Your task to perform on an android device: open app "Calculator" (install if not already installed) Image 0: 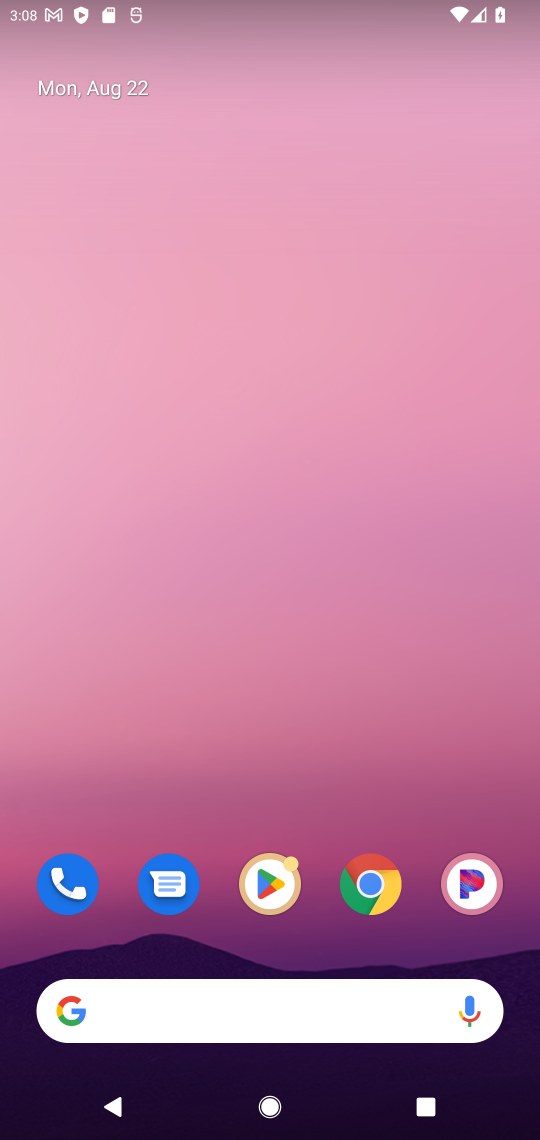
Step 0: click (264, 888)
Your task to perform on an android device: open app "Calculator" (install if not already installed) Image 1: 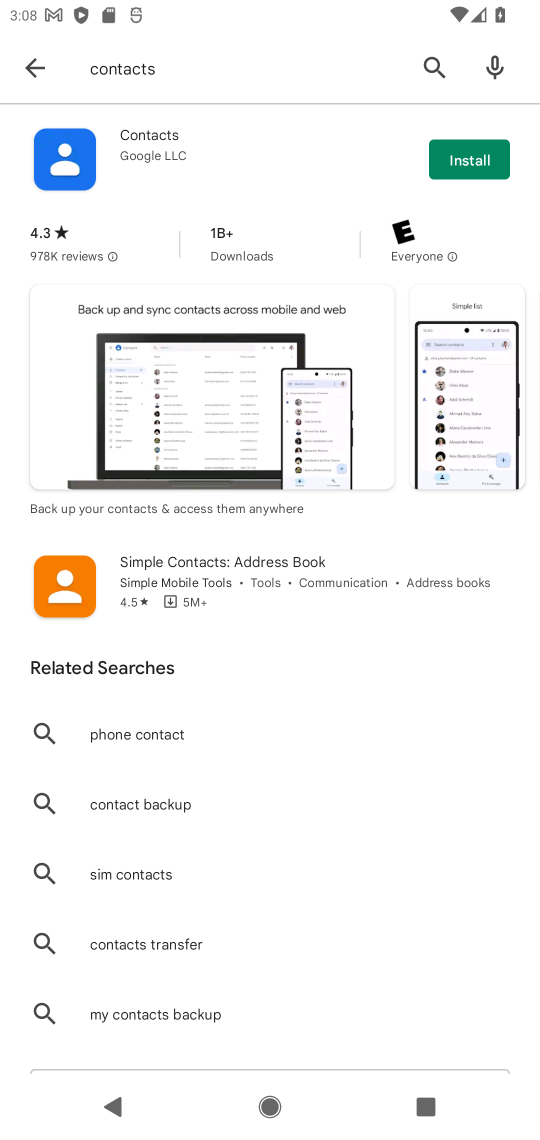
Step 1: click (155, 69)
Your task to perform on an android device: open app "Calculator" (install if not already installed) Image 2: 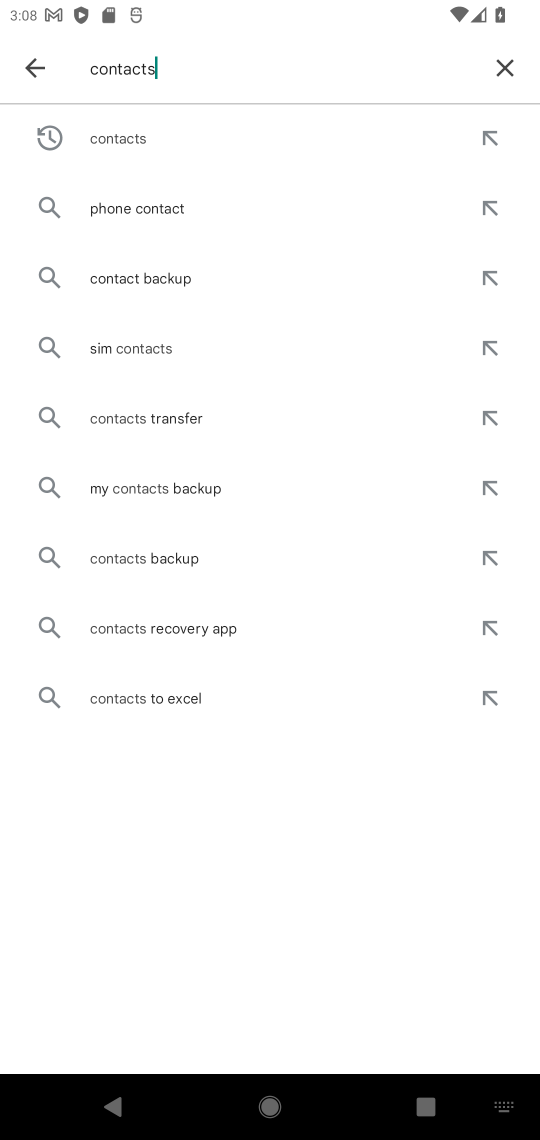
Step 2: click (501, 63)
Your task to perform on an android device: open app "Calculator" (install if not already installed) Image 3: 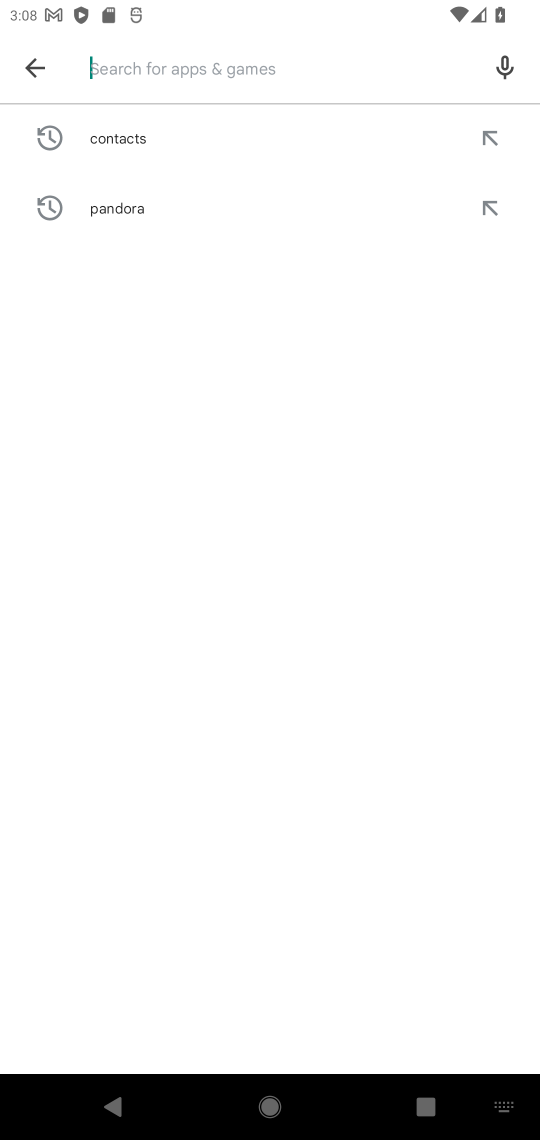
Step 3: type "calculator"
Your task to perform on an android device: open app "Calculator" (install if not already installed) Image 4: 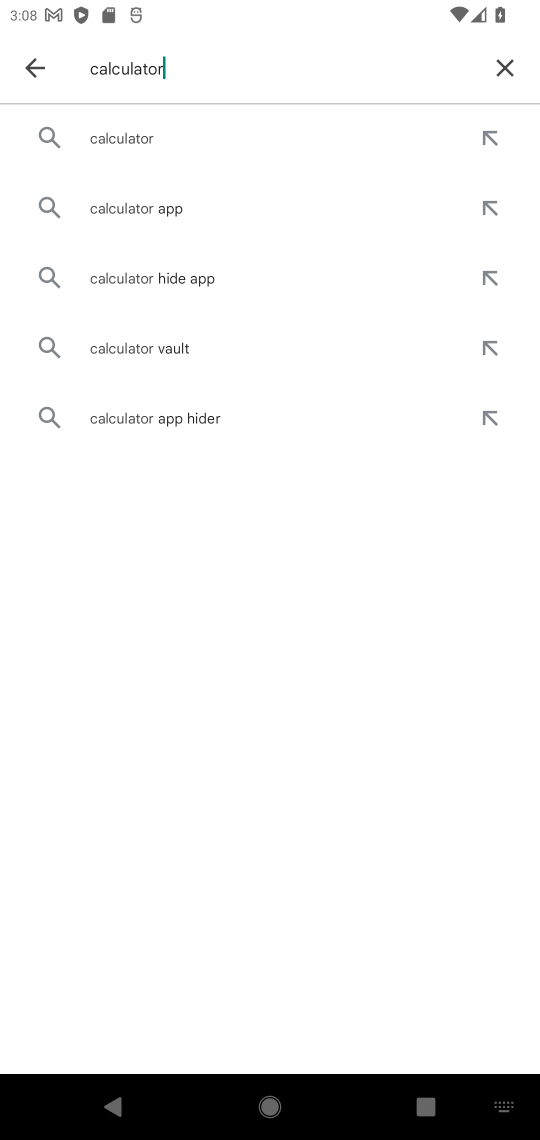
Step 4: click (140, 130)
Your task to perform on an android device: open app "Calculator" (install if not already installed) Image 5: 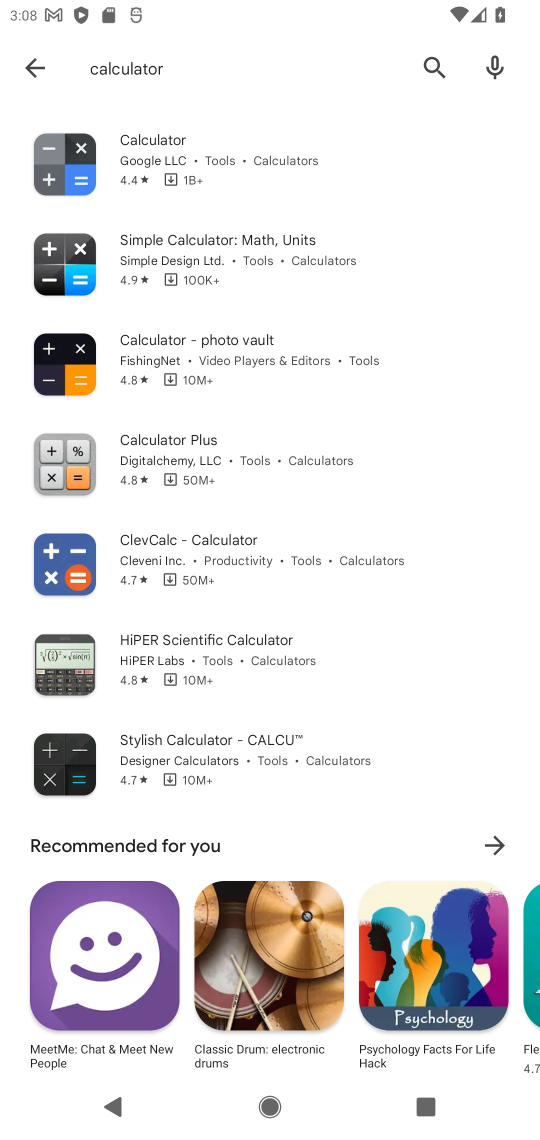
Step 5: click (254, 171)
Your task to perform on an android device: open app "Calculator" (install if not already installed) Image 6: 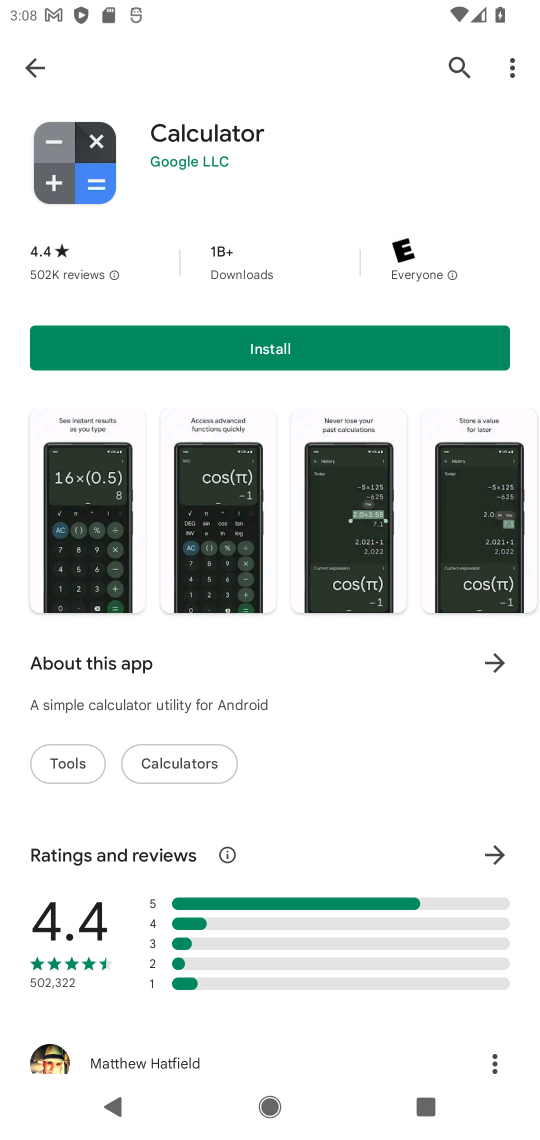
Step 6: click (296, 348)
Your task to perform on an android device: open app "Calculator" (install if not already installed) Image 7: 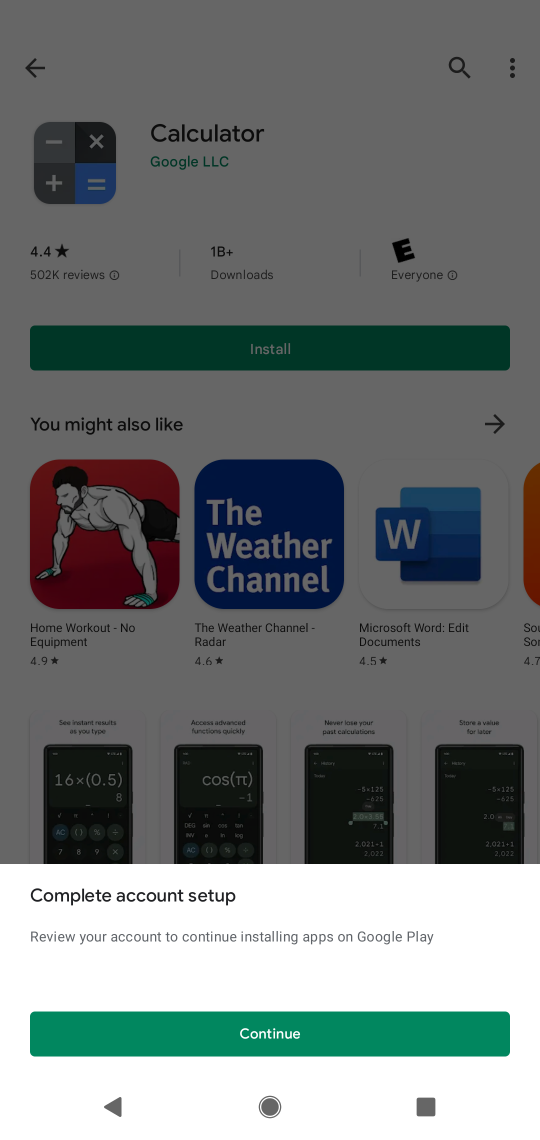
Step 7: click (252, 1035)
Your task to perform on an android device: open app "Calculator" (install if not already installed) Image 8: 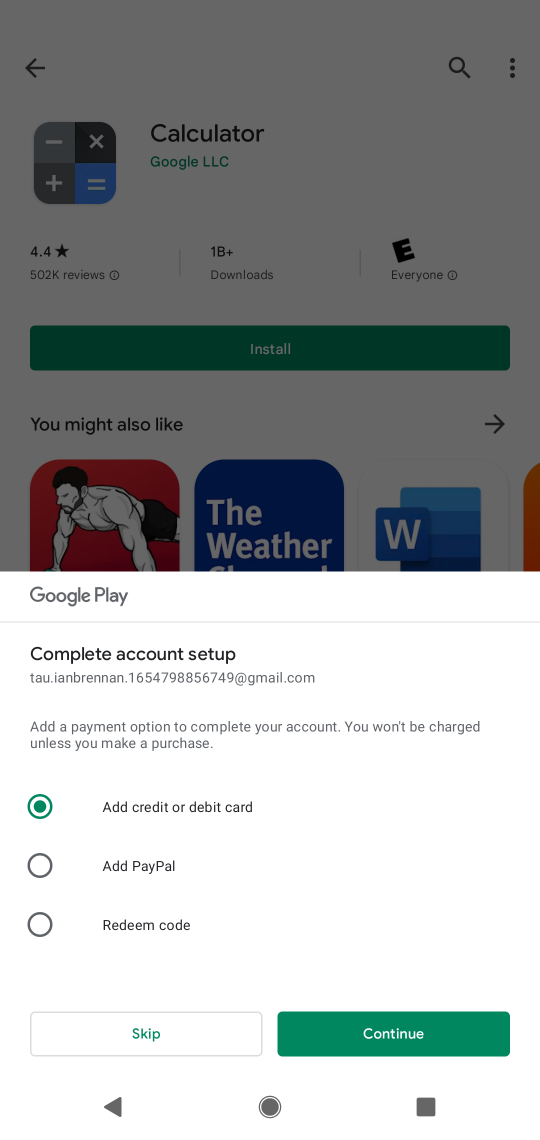
Step 8: click (132, 1039)
Your task to perform on an android device: open app "Calculator" (install if not already installed) Image 9: 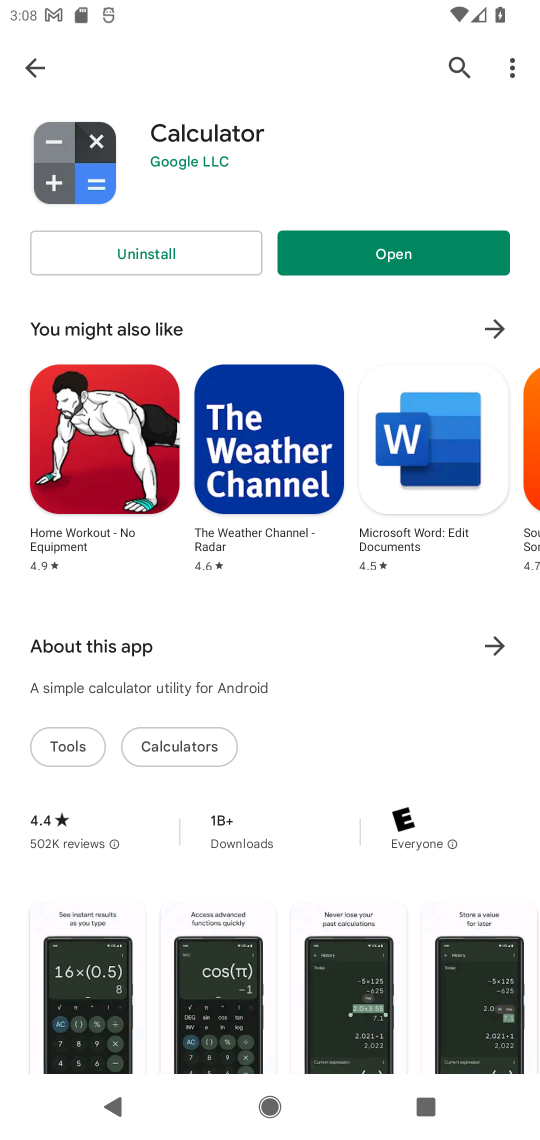
Step 9: click (446, 257)
Your task to perform on an android device: open app "Calculator" (install if not already installed) Image 10: 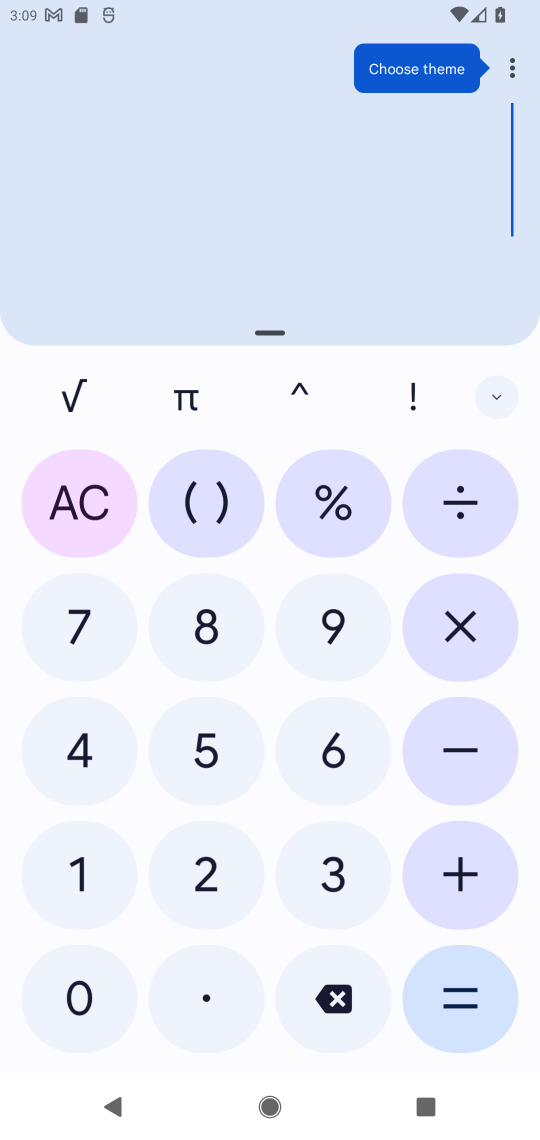
Step 10: task complete